Your task to perform on an android device: Open my contact list Image 0: 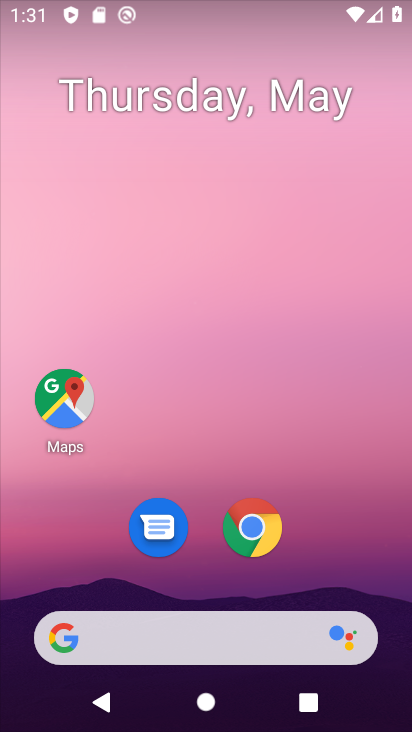
Step 0: click (194, 158)
Your task to perform on an android device: Open my contact list Image 1: 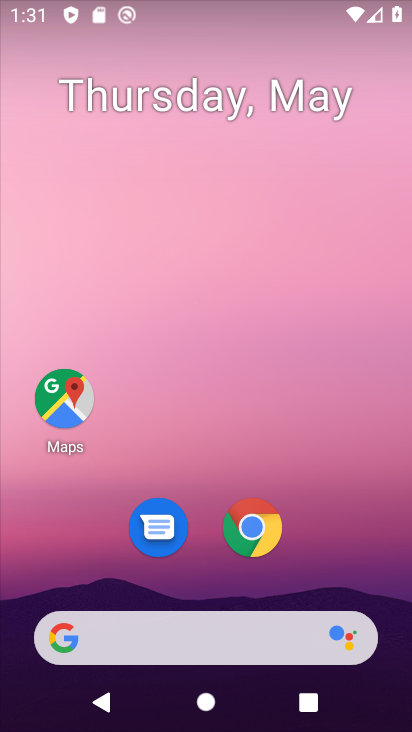
Step 1: drag from (204, 495) to (136, 13)
Your task to perform on an android device: Open my contact list Image 2: 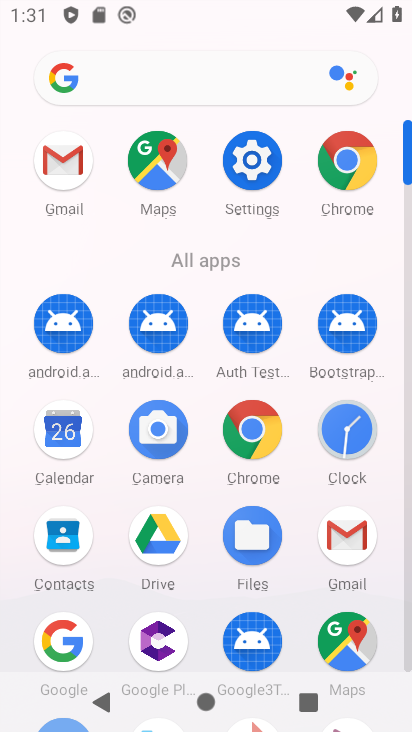
Step 2: click (54, 542)
Your task to perform on an android device: Open my contact list Image 3: 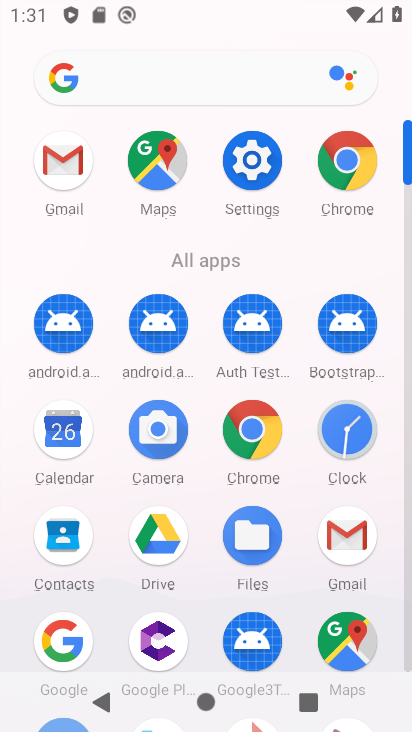
Step 3: click (54, 541)
Your task to perform on an android device: Open my contact list Image 4: 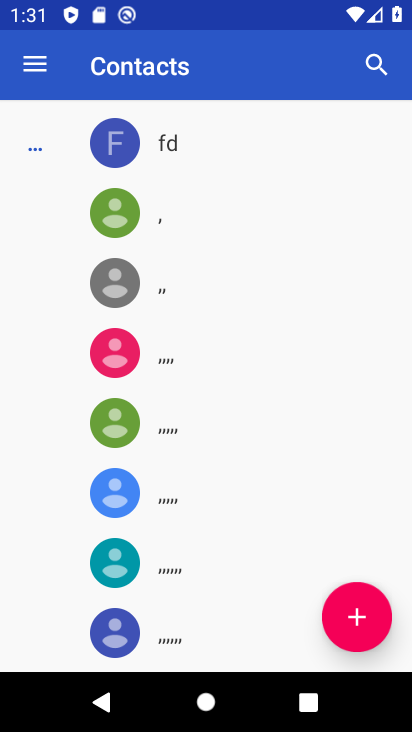
Step 4: task complete